Your task to perform on an android device: Do I have any events tomorrow? Image 0: 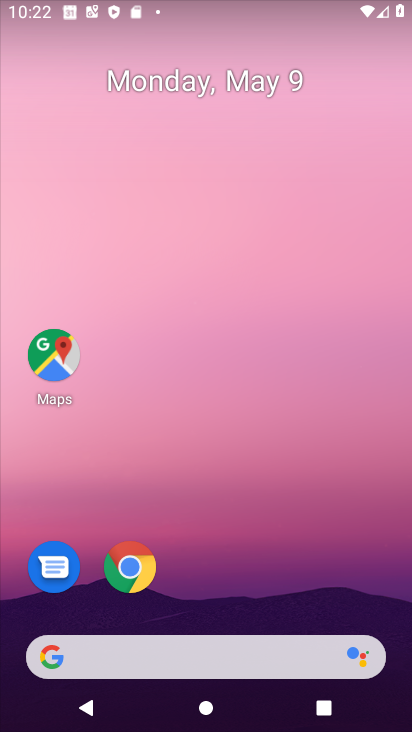
Step 0: drag from (207, 612) to (148, 21)
Your task to perform on an android device: Do I have any events tomorrow? Image 1: 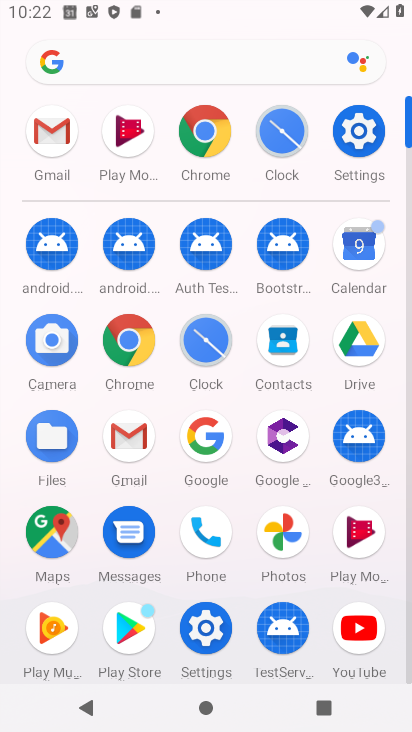
Step 1: click (360, 258)
Your task to perform on an android device: Do I have any events tomorrow? Image 2: 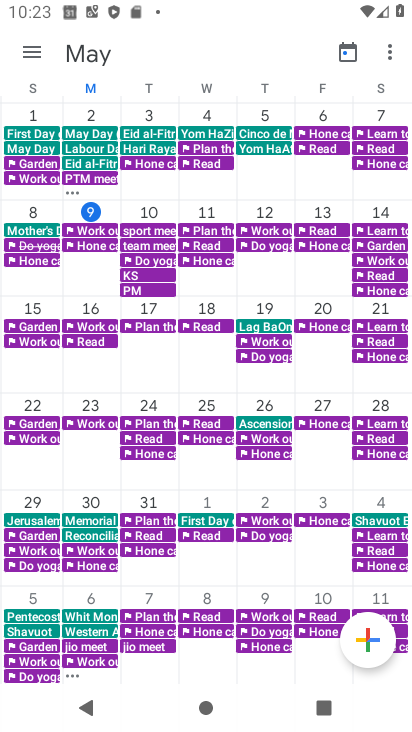
Step 2: click (38, 60)
Your task to perform on an android device: Do I have any events tomorrow? Image 3: 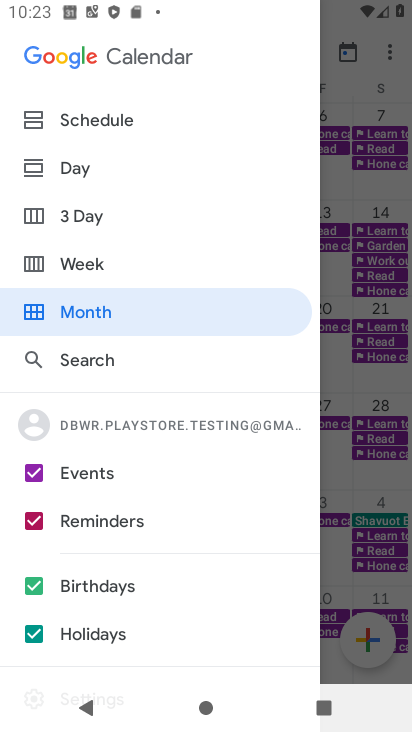
Step 3: click (72, 117)
Your task to perform on an android device: Do I have any events tomorrow? Image 4: 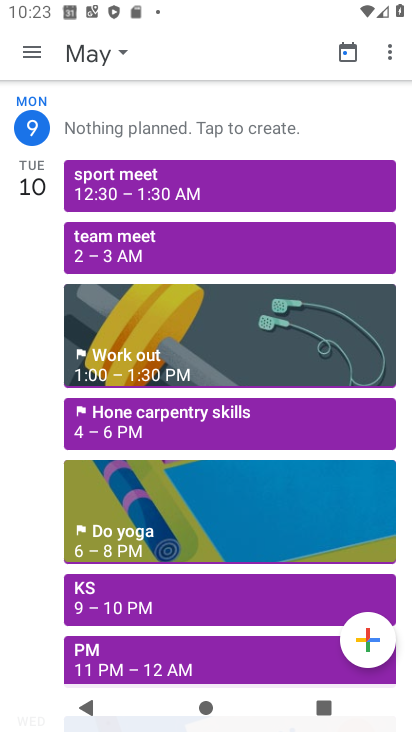
Step 4: task complete